Your task to perform on an android device: empty trash in the gmail app Image 0: 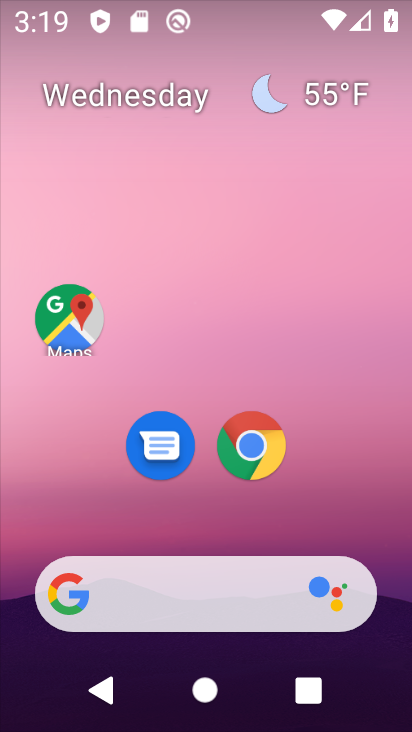
Step 0: drag from (369, 455) to (341, 90)
Your task to perform on an android device: empty trash in the gmail app Image 1: 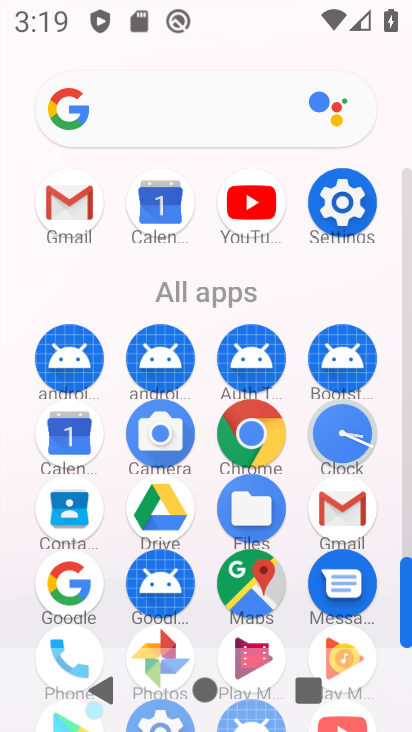
Step 1: click (78, 206)
Your task to perform on an android device: empty trash in the gmail app Image 2: 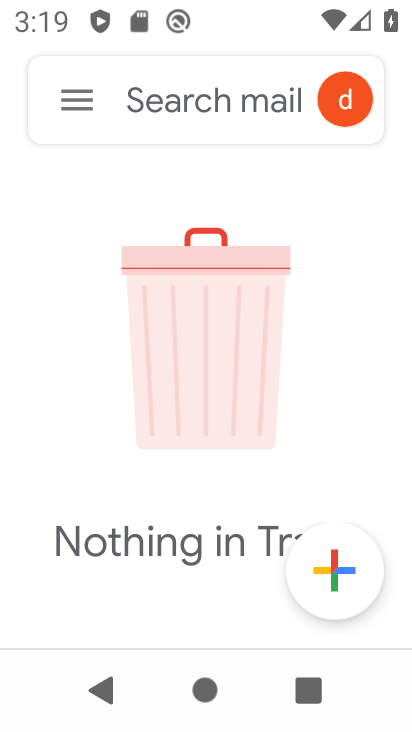
Step 2: click (56, 101)
Your task to perform on an android device: empty trash in the gmail app Image 3: 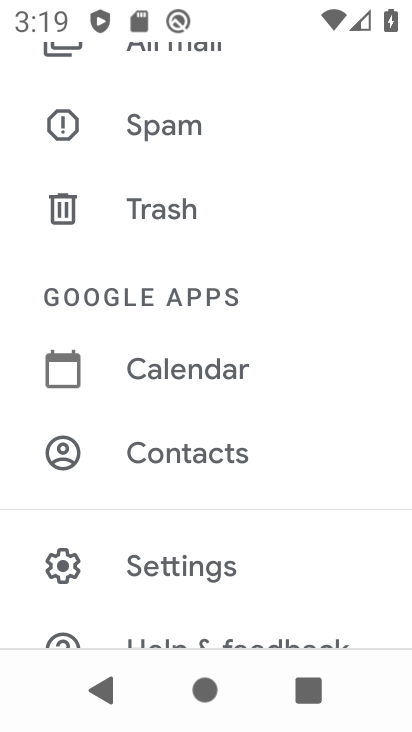
Step 3: click (203, 210)
Your task to perform on an android device: empty trash in the gmail app Image 4: 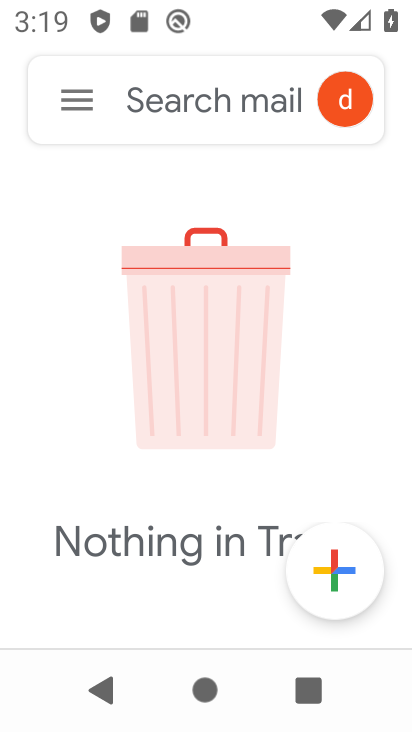
Step 4: task complete